Your task to perform on an android device: delete a single message in the gmail app Image 0: 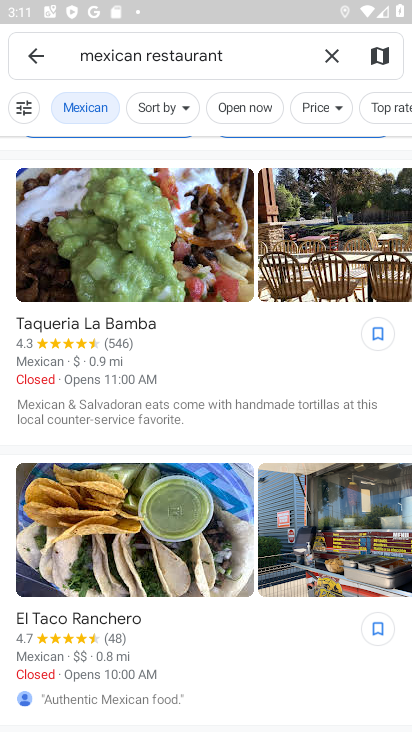
Step 0: press home button
Your task to perform on an android device: delete a single message in the gmail app Image 1: 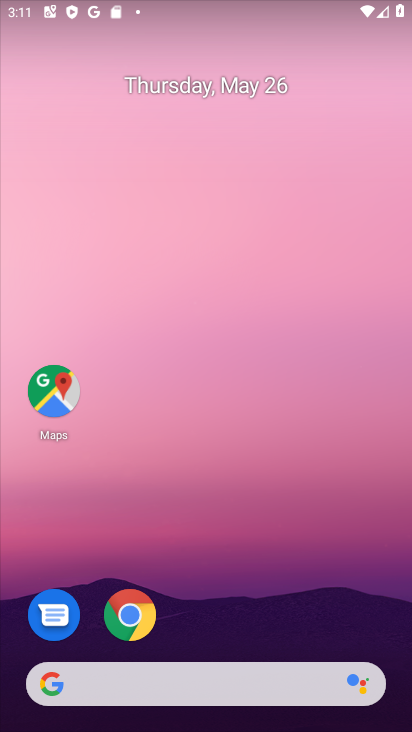
Step 1: drag from (220, 628) to (215, 109)
Your task to perform on an android device: delete a single message in the gmail app Image 2: 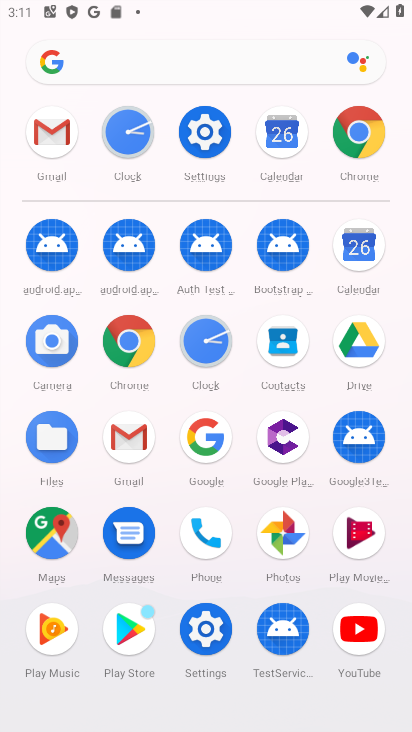
Step 2: click (32, 155)
Your task to perform on an android device: delete a single message in the gmail app Image 3: 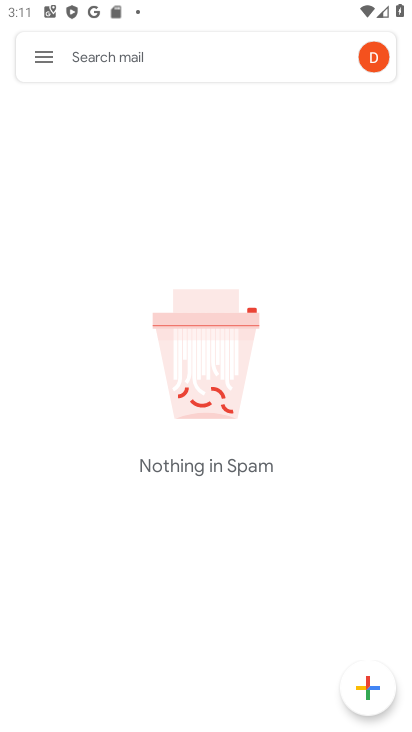
Step 3: click (51, 59)
Your task to perform on an android device: delete a single message in the gmail app Image 4: 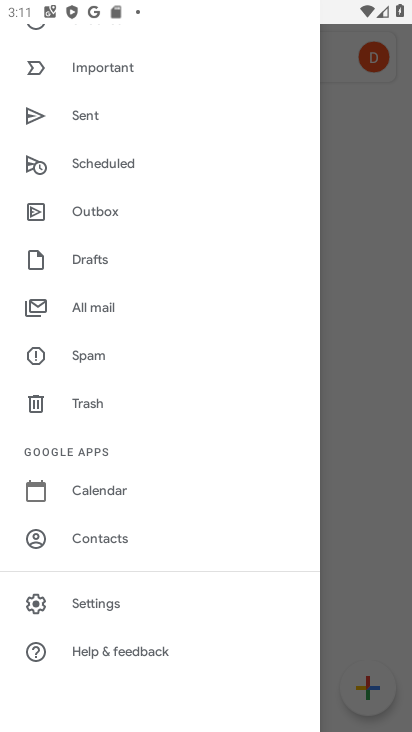
Step 4: click (126, 312)
Your task to perform on an android device: delete a single message in the gmail app Image 5: 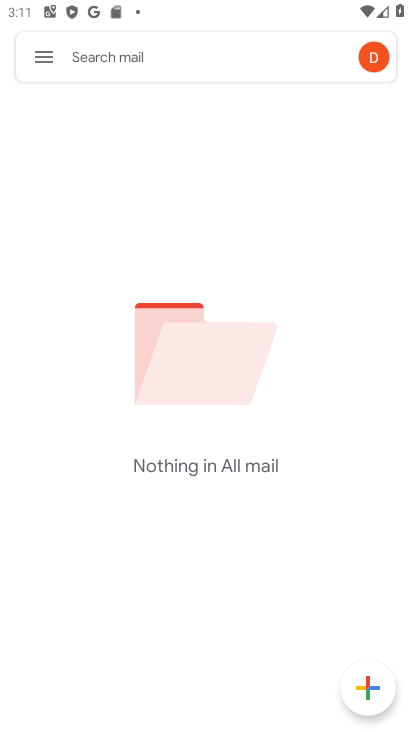
Step 5: task complete